Your task to perform on an android device: Go to battery settings Image 0: 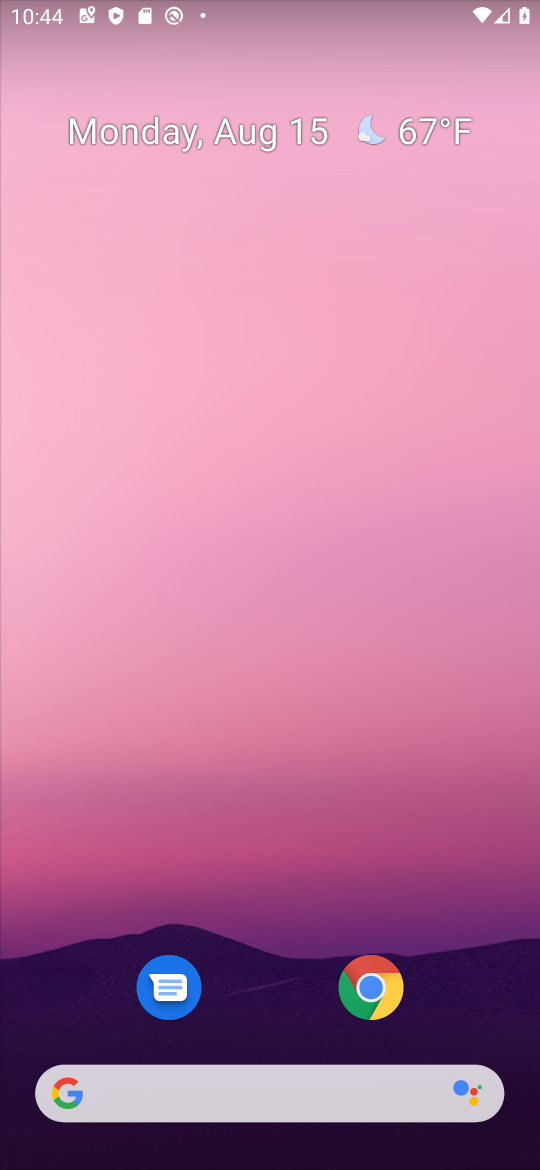
Step 0: drag from (269, 1043) to (248, 198)
Your task to perform on an android device: Go to battery settings Image 1: 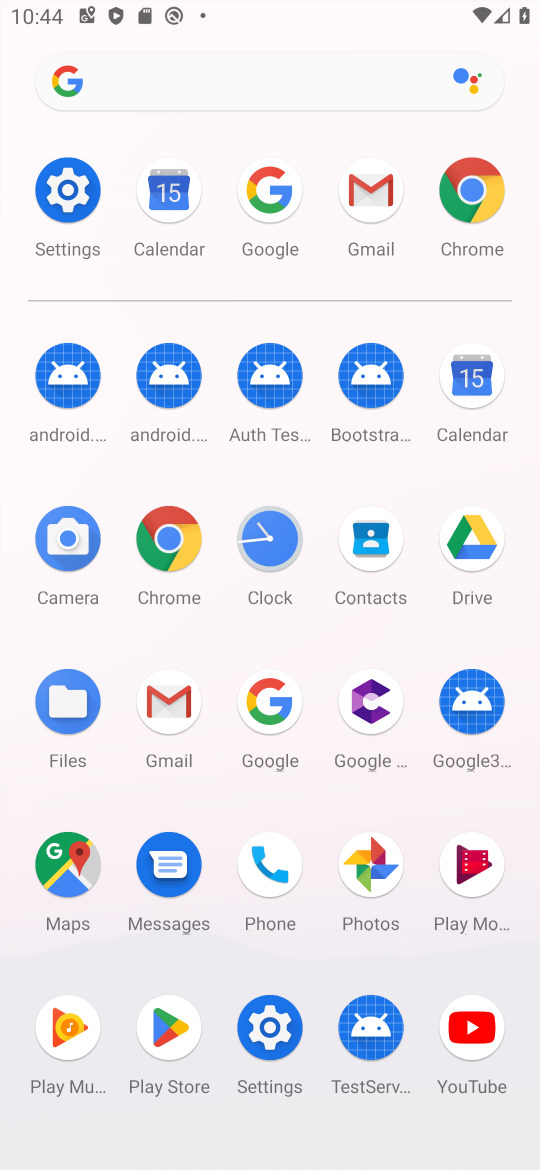
Step 1: click (280, 1036)
Your task to perform on an android device: Go to battery settings Image 2: 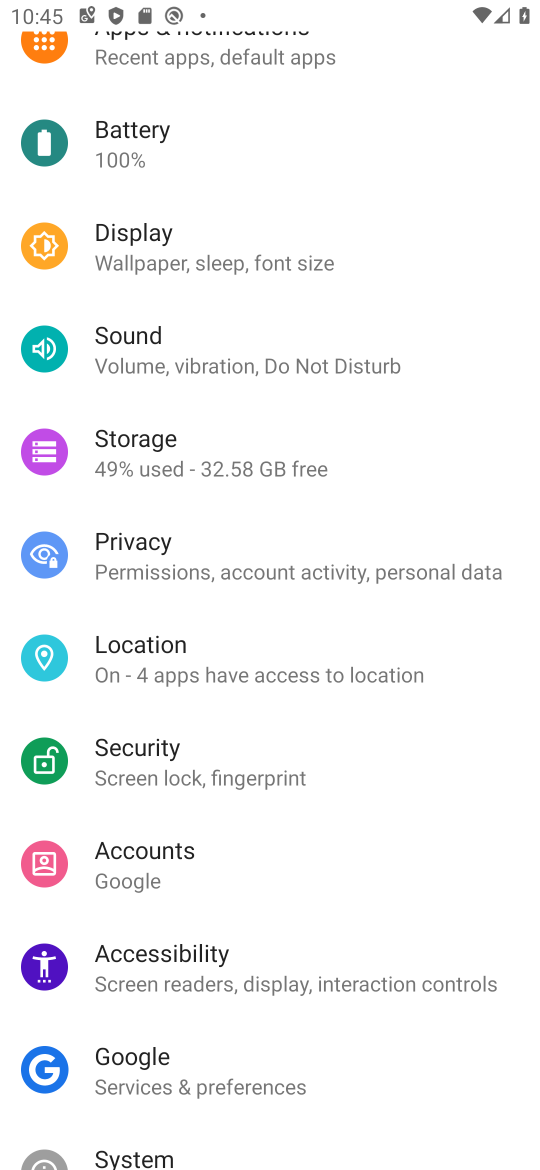
Step 2: click (109, 122)
Your task to perform on an android device: Go to battery settings Image 3: 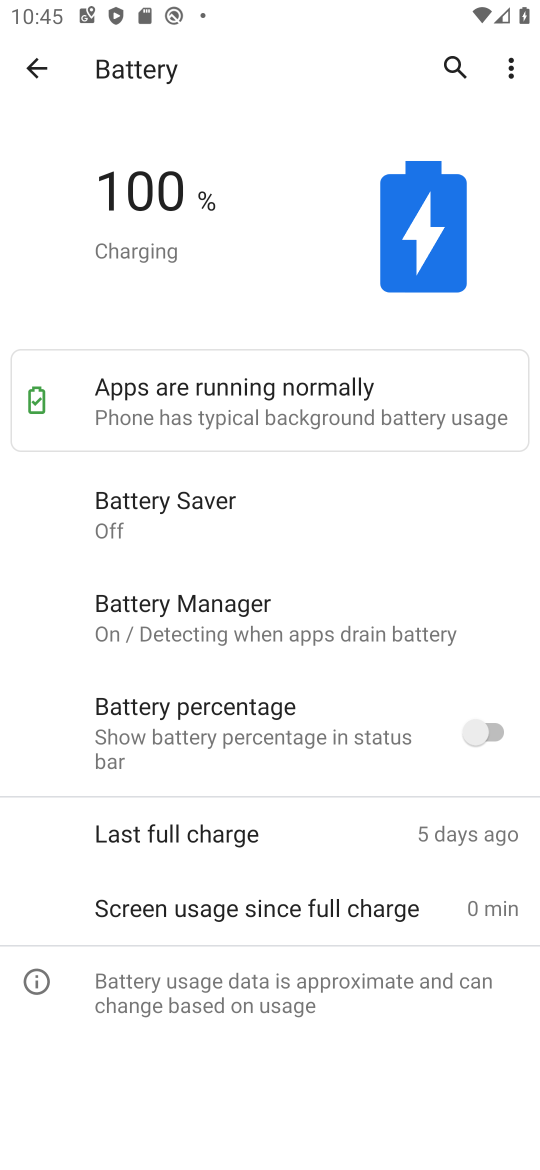
Step 3: task complete